Your task to perform on an android device: open sync settings in chrome Image 0: 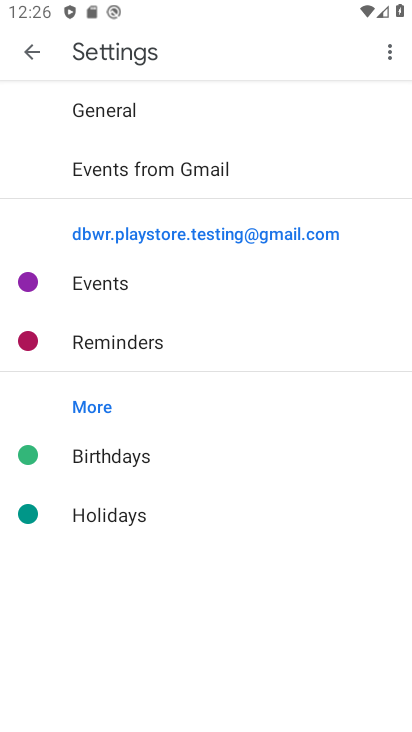
Step 0: press home button
Your task to perform on an android device: open sync settings in chrome Image 1: 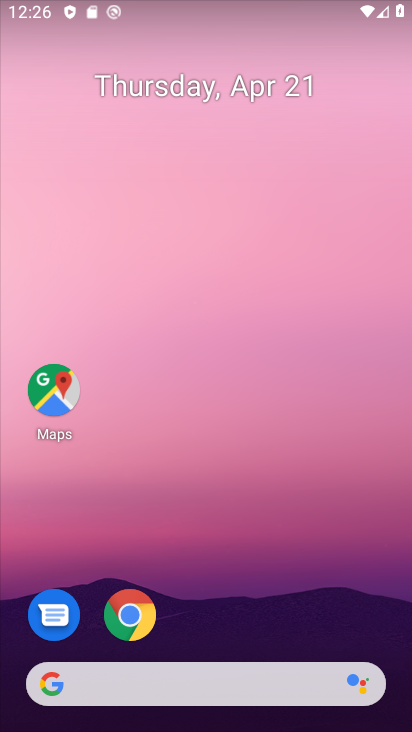
Step 1: click (270, 634)
Your task to perform on an android device: open sync settings in chrome Image 2: 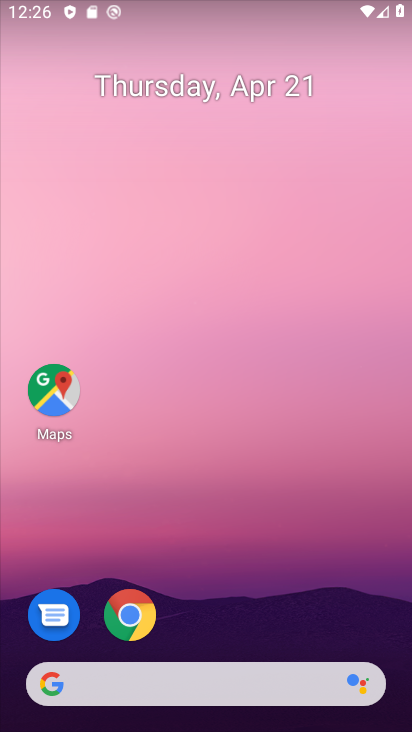
Step 2: click (130, 608)
Your task to perform on an android device: open sync settings in chrome Image 3: 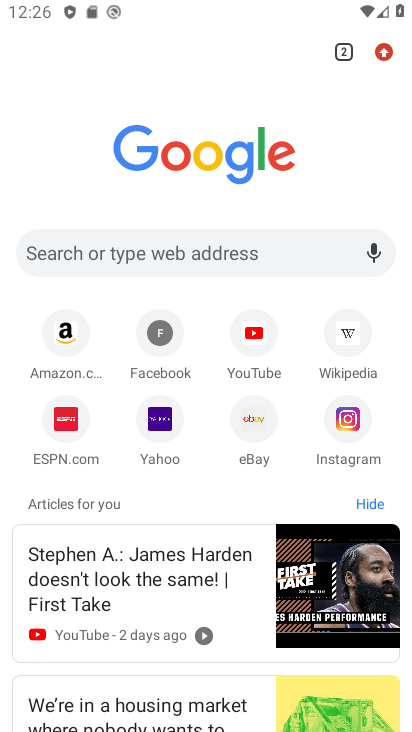
Step 3: click (375, 49)
Your task to perform on an android device: open sync settings in chrome Image 4: 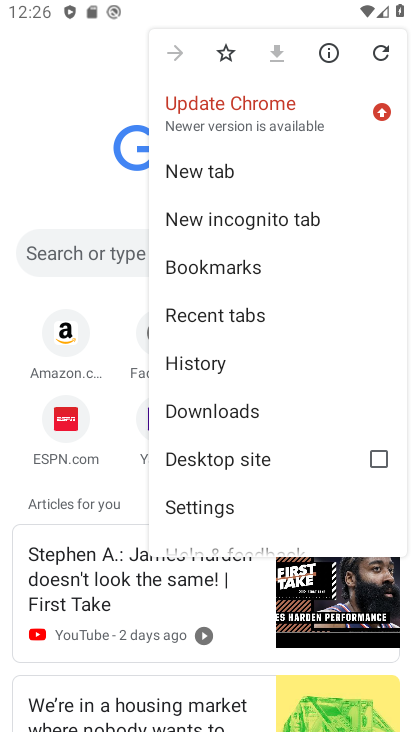
Step 4: click (242, 493)
Your task to perform on an android device: open sync settings in chrome Image 5: 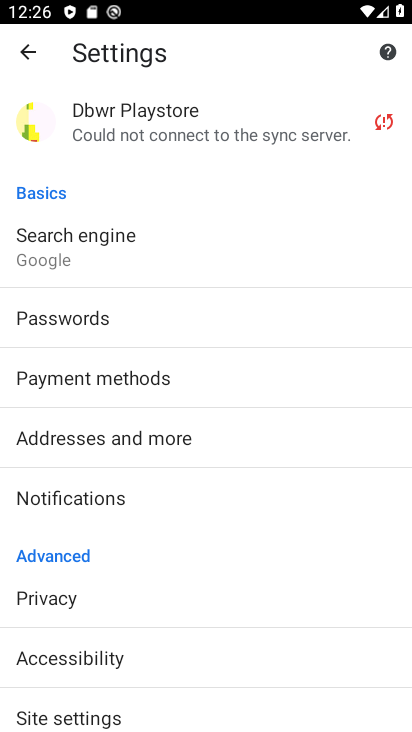
Step 5: click (68, 138)
Your task to perform on an android device: open sync settings in chrome Image 6: 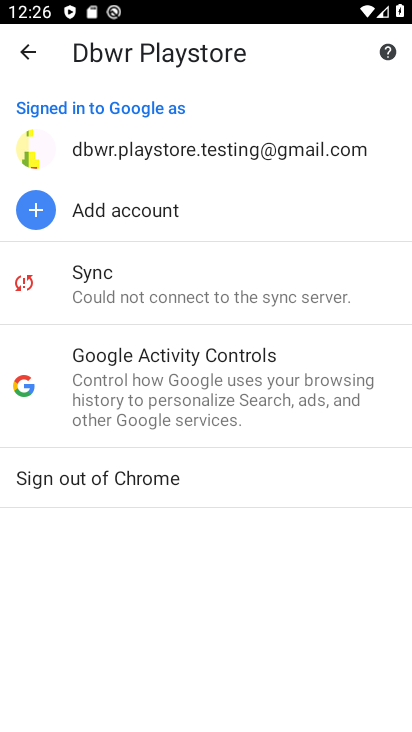
Step 6: click (62, 285)
Your task to perform on an android device: open sync settings in chrome Image 7: 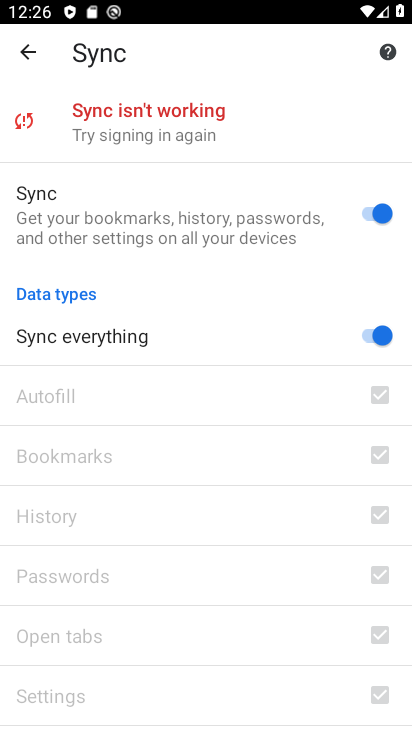
Step 7: task complete